Your task to perform on an android device: Show me popular videos on Youtube Image 0: 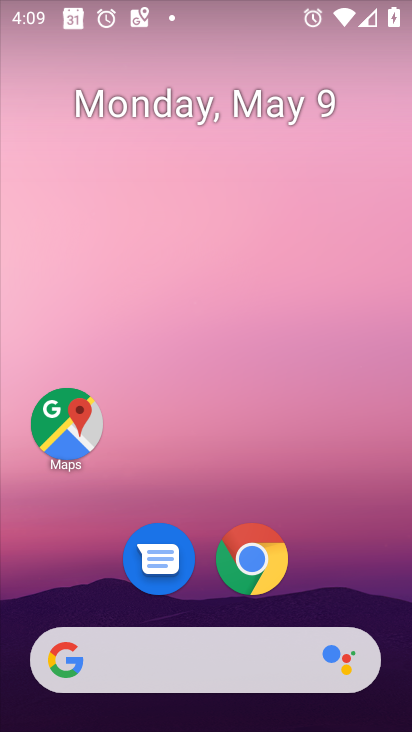
Step 0: drag from (206, 728) to (200, 190)
Your task to perform on an android device: Show me popular videos on Youtube Image 1: 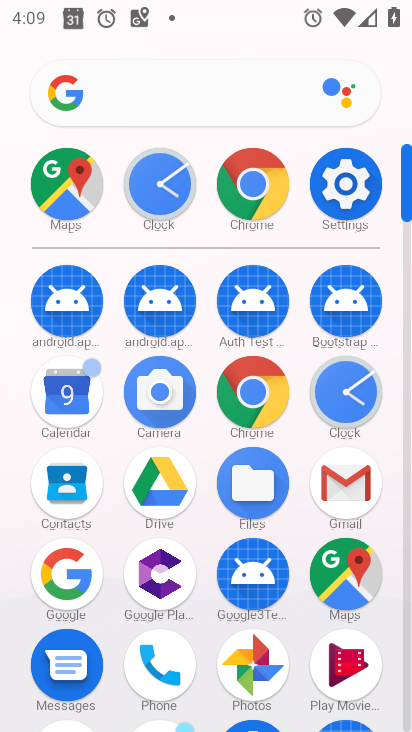
Step 1: drag from (301, 608) to (303, 259)
Your task to perform on an android device: Show me popular videos on Youtube Image 2: 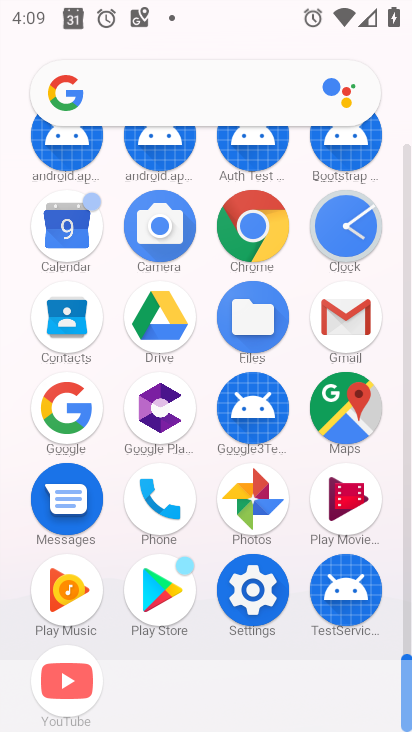
Step 2: click (64, 660)
Your task to perform on an android device: Show me popular videos on Youtube Image 3: 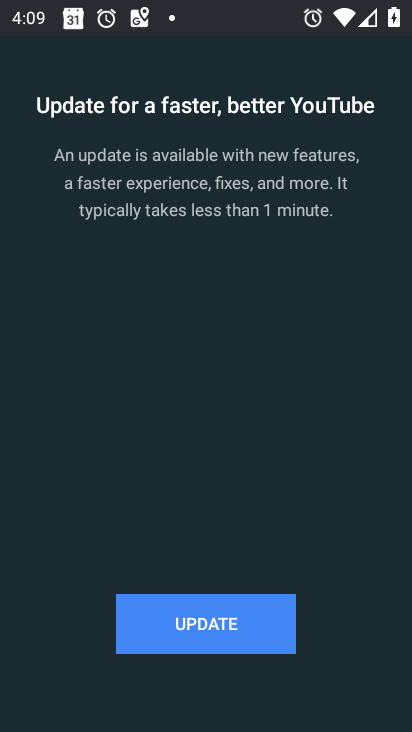
Step 3: task complete